Your task to perform on an android device: Open ESPN.com Image 0: 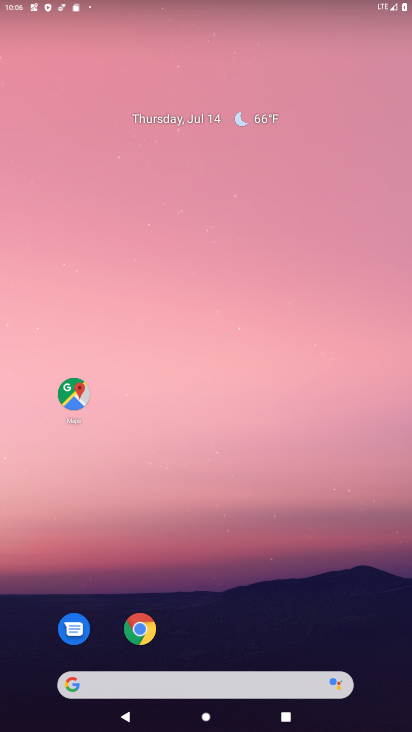
Step 0: press home button
Your task to perform on an android device: Open ESPN.com Image 1: 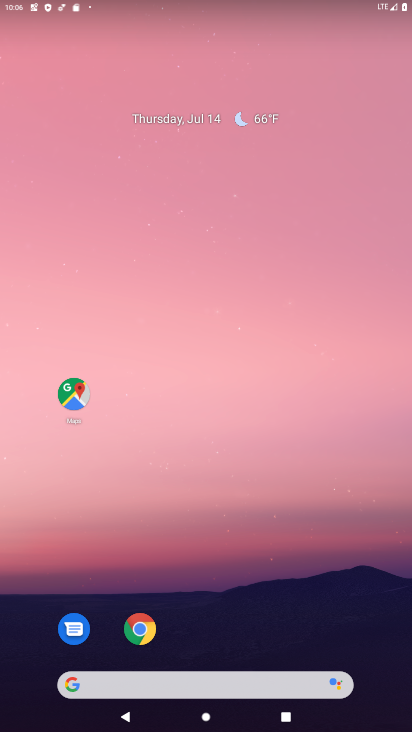
Step 1: drag from (277, 608) to (359, 269)
Your task to perform on an android device: Open ESPN.com Image 2: 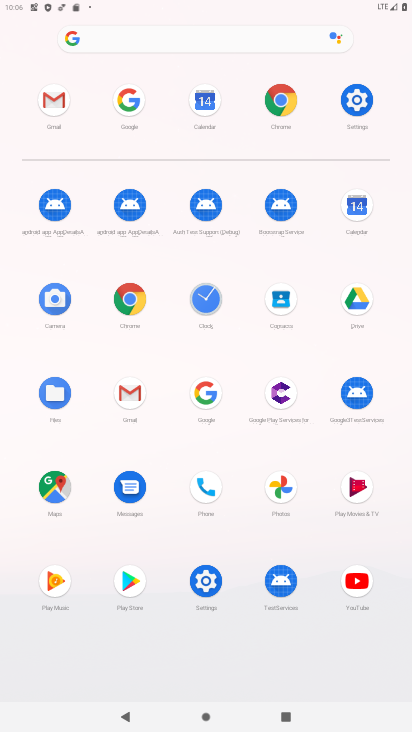
Step 2: click (133, 102)
Your task to perform on an android device: Open ESPN.com Image 3: 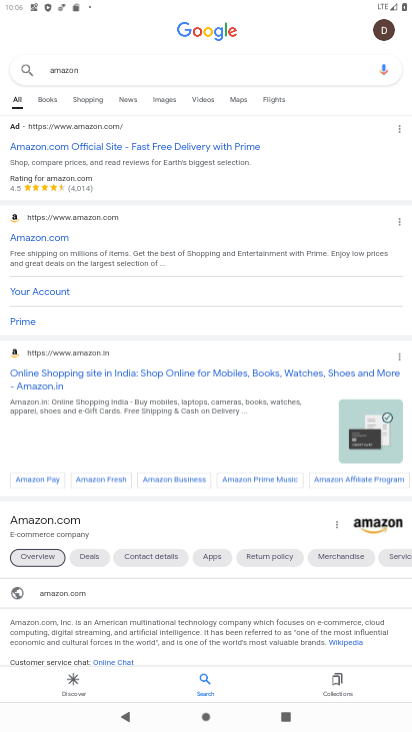
Step 3: click (295, 61)
Your task to perform on an android device: Open ESPN.com Image 4: 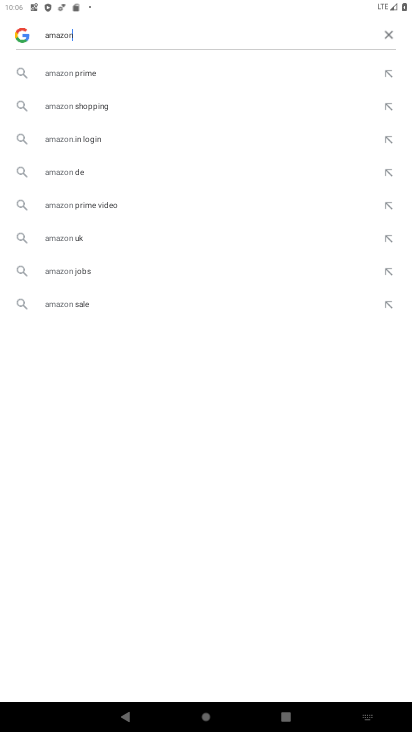
Step 4: click (386, 40)
Your task to perform on an android device: Open ESPN.com Image 5: 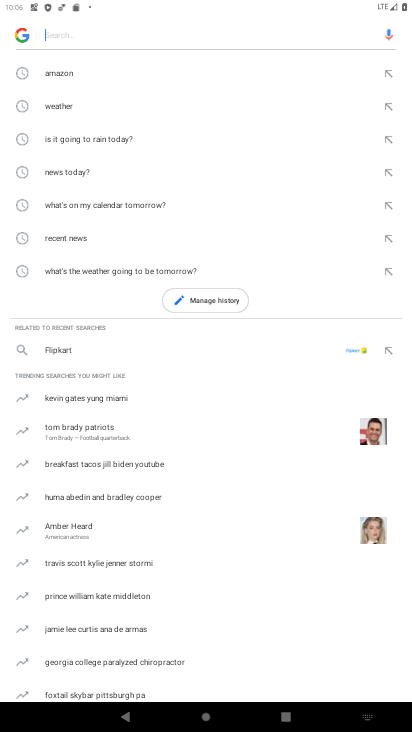
Step 5: type "ESPN.com"
Your task to perform on an android device: Open ESPN.com Image 6: 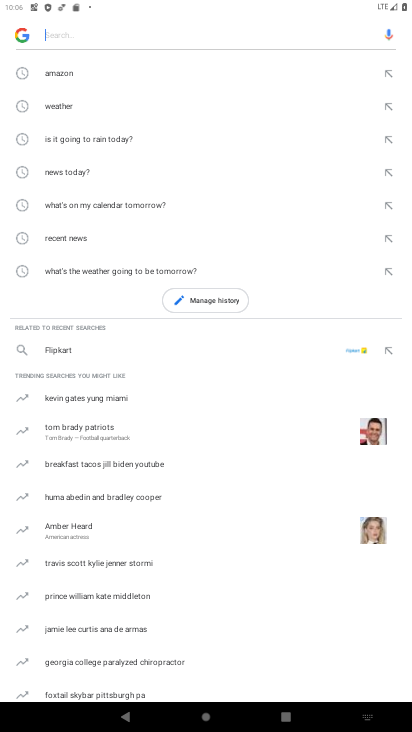
Step 6: click (65, 36)
Your task to perform on an android device: Open ESPN.com Image 7: 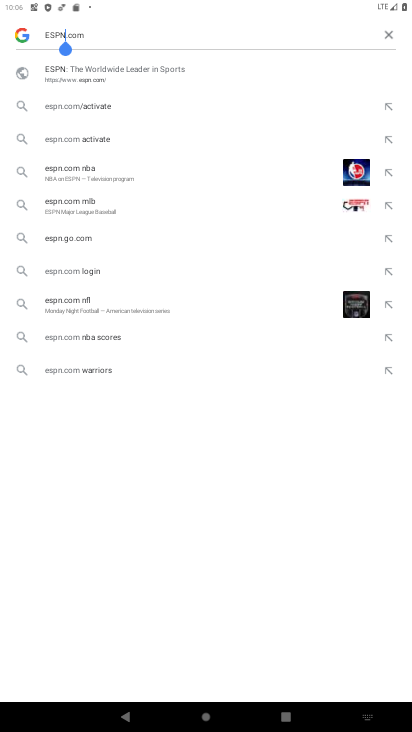
Step 7: click (93, 70)
Your task to perform on an android device: Open ESPN.com Image 8: 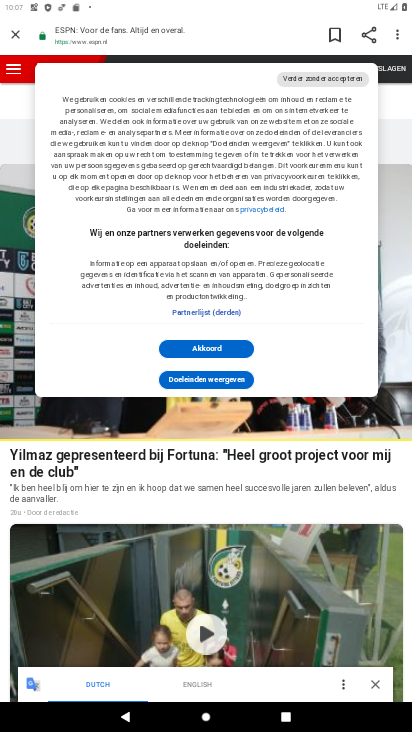
Step 8: task complete